Your task to perform on an android device: delete browsing data in the chrome app Image 0: 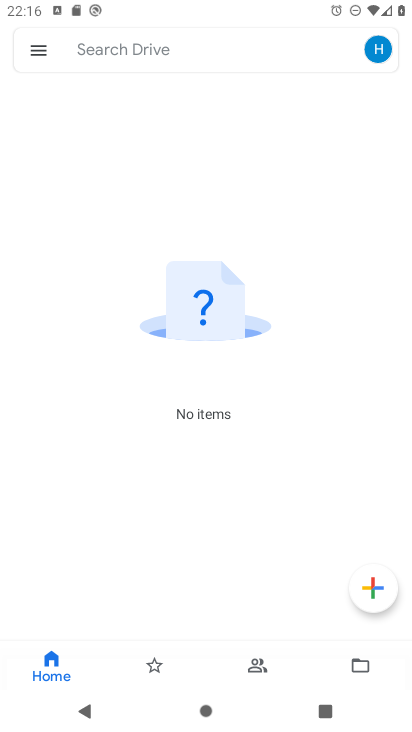
Step 0: press home button
Your task to perform on an android device: delete browsing data in the chrome app Image 1: 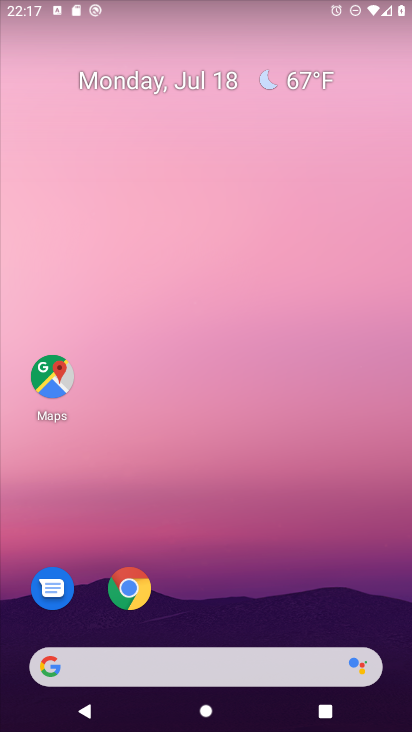
Step 1: click (127, 590)
Your task to perform on an android device: delete browsing data in the chrome app Image 2: 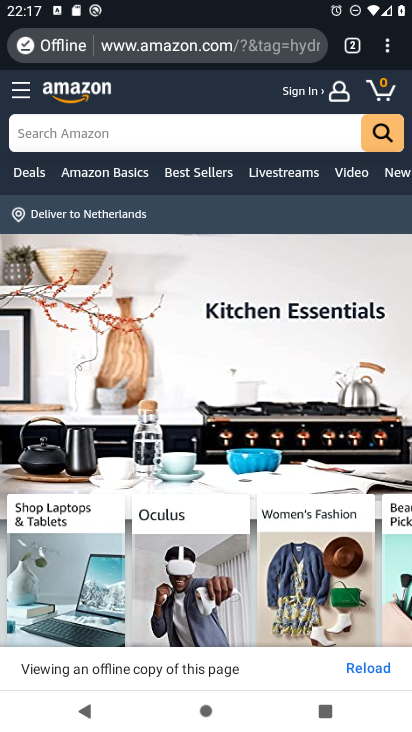
Step 2: click (391, 53)
Your task to perform on an android device: delete browsing data in the chrome app Image 3: 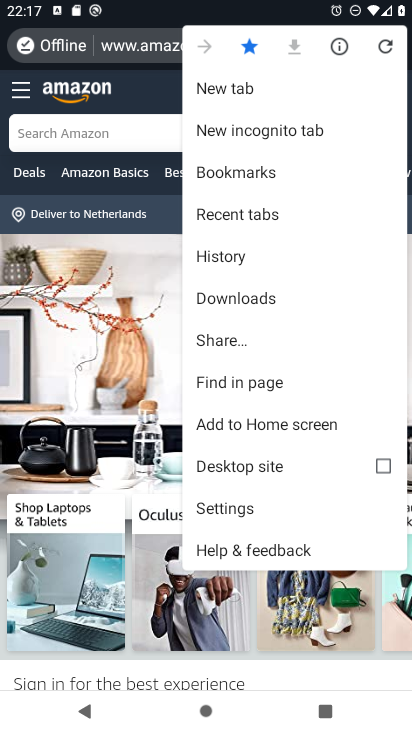
Step 3: click (231, 252)
Your task to perform on an android device: delete browsing data in the chrome app Image 4: 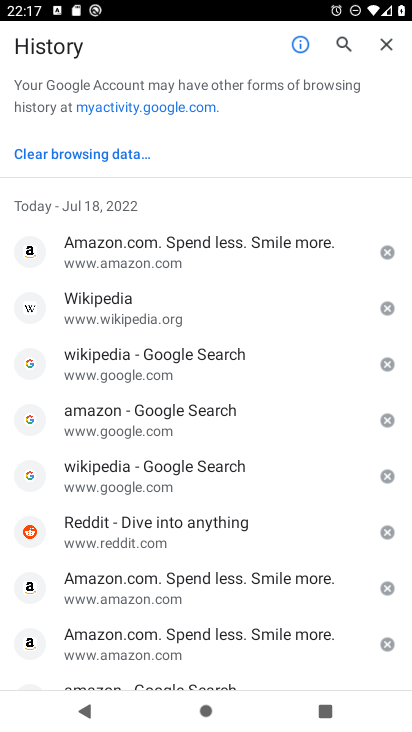
Step 4: click (88, 147)
Your task to perform on an android device: delete browsing data in the chrome app Image 5: 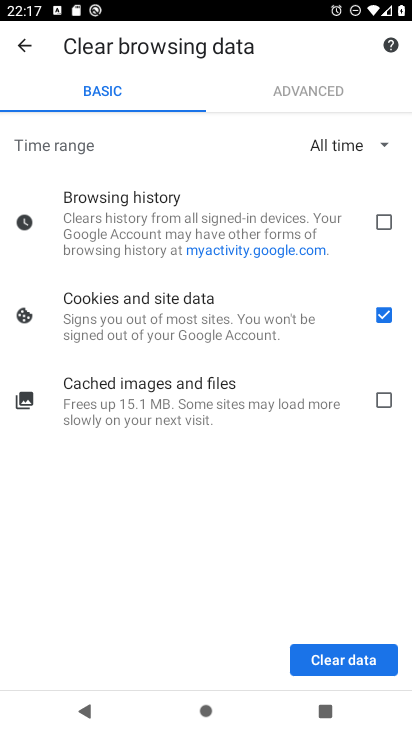
Step 5: click (385, 222)
Your task to perform on an android device: delete browsing data in the chrome app Image 6: 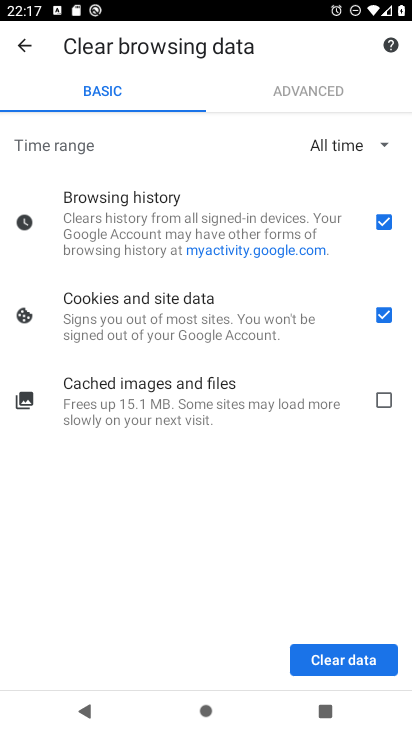
Step 6: click (383, 316)
Your task to perform on an android device: delete browsing data in the chrome app Image 7: 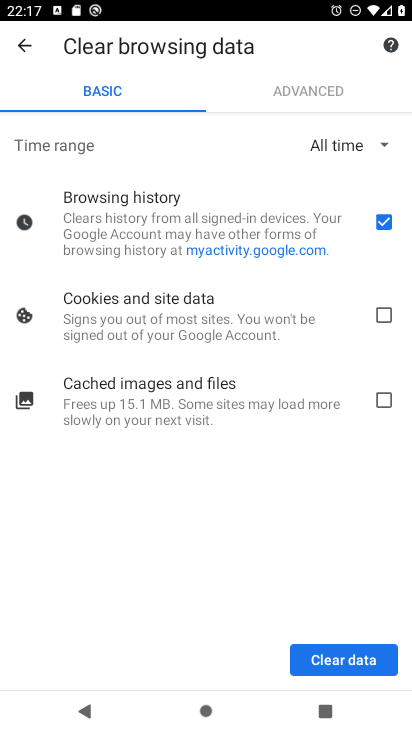
Step 7: click (348, 663)
Your task to perform on an android device: delete browsing data in the chrome app Image 8: 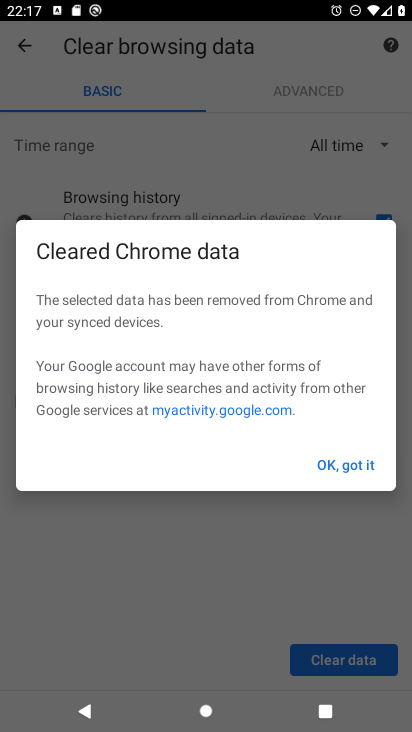
Step 8: click (341, 462)
Your task to perform on an android device: delete browsing data in the chrome app Image 9: 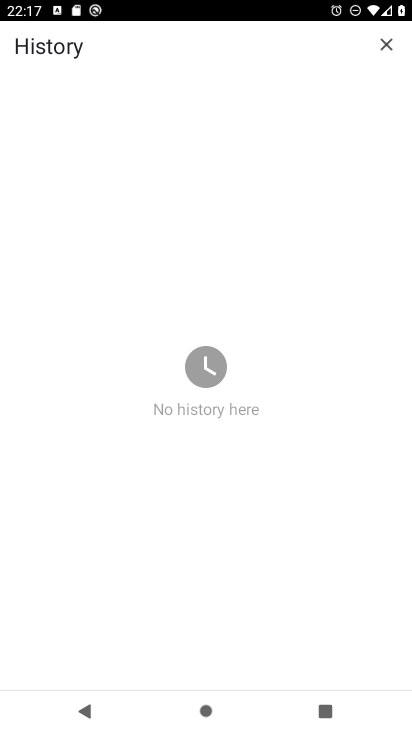
Step 9: task complete